Your task to perform on an android device: delete a single message in the gmail app Image 0: 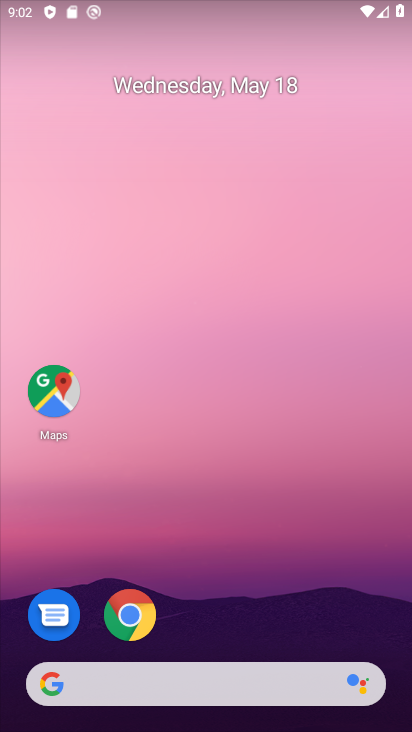
Step 0: drag from (234, 604) to (267, 81)
Your task to perform on an android device: delete a single message in the gmail app Image 1: 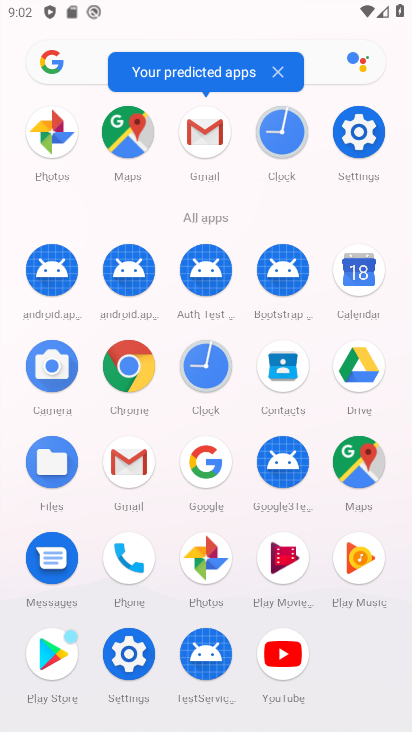
Step 1: click (204, 177)
Your task to perform on an android device: delete a single message in the gmail app Image 2: 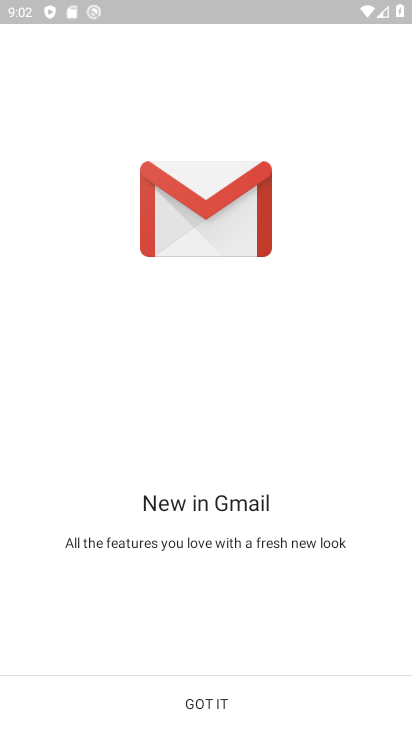
Step 2: click (220, 699)
Your task to perform on an android device: delete a single message in the gmail app Image 3: 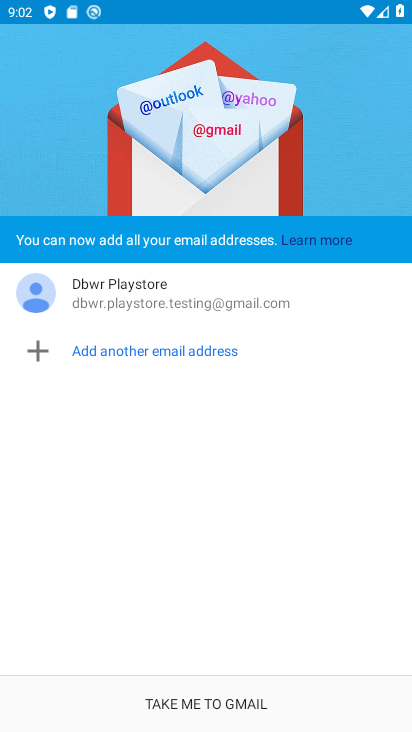
Step 3: click (219, 702)
Your task to perform on an android device: delete a single message in the gmail app Image 4: 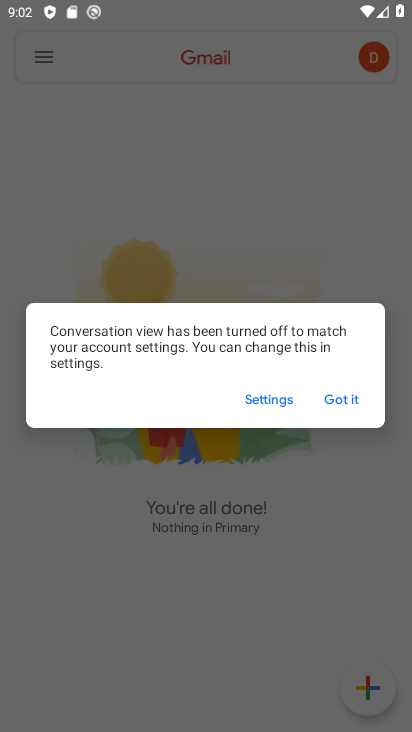
Step 4: click (330, 396)
Your task to perform on an android device: delete a single message in the gmail app Image 5: 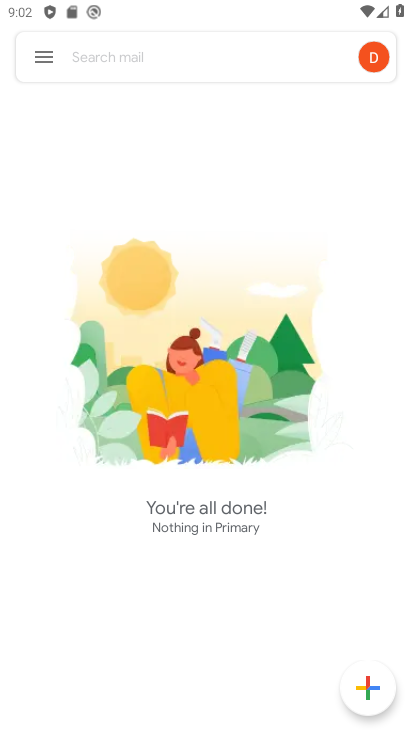
Step 5: click (44, 71)
Your task to perform on an android device: delete a single message in the gmail app Image 6: 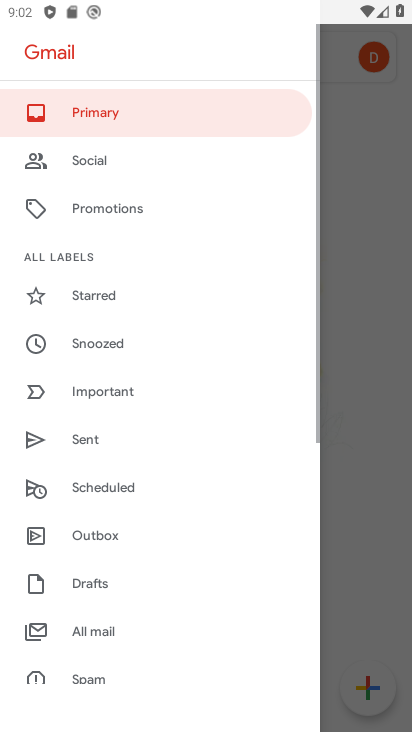
Step 6: click (114, 622)
Your task to perform on an android device: delete a single message in the gmail app Image 7: 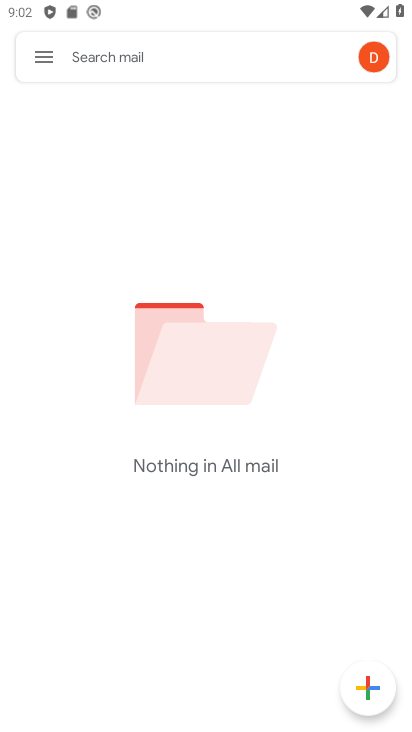
Step 7: task complete